Your task to perform on an android device: Open the calendar and show me this week's events? Image 0: 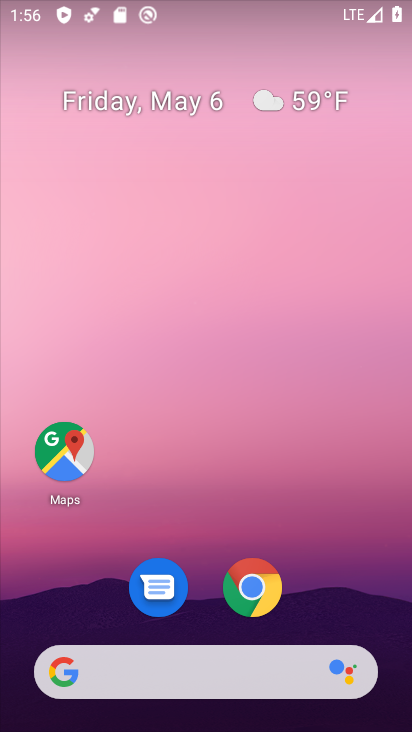
Step 0: drag from (363, 361) to (390, 3)
Your task to perform on an android device: Open the calendar and show me this week's events? Image 1: 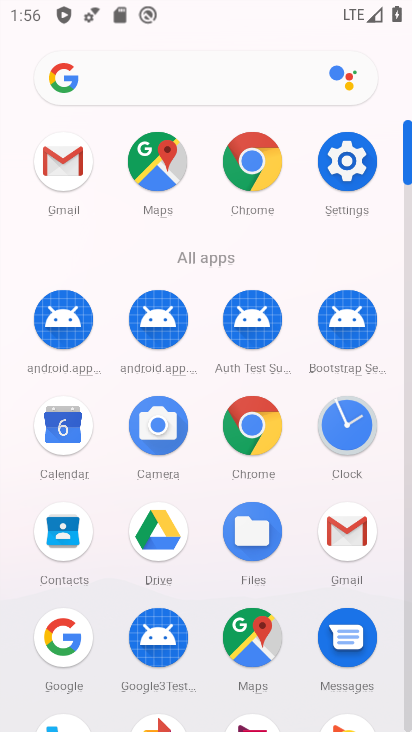
Step 1: click (69, 432)
Your task to perform on an android device: Open the calendar and show me this week's events? Image 2: 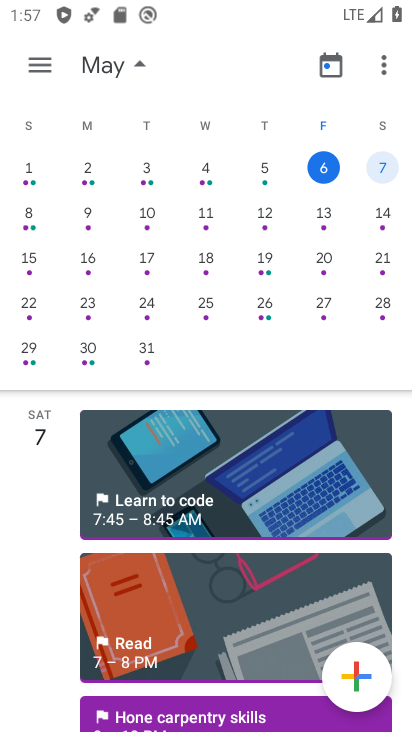
Step 2: click (269, 171)
Your task to perform on an android device: Open the calendar and show me this week's events? Image 3: 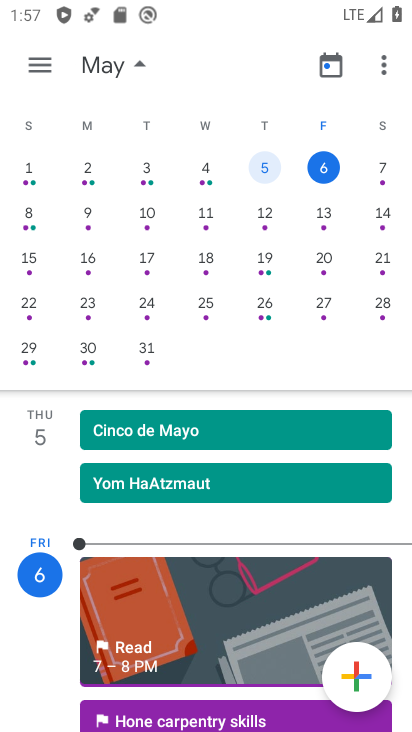
Step 3: task complete